Your task to perform on an android device: toggle sleep mode Image 0: 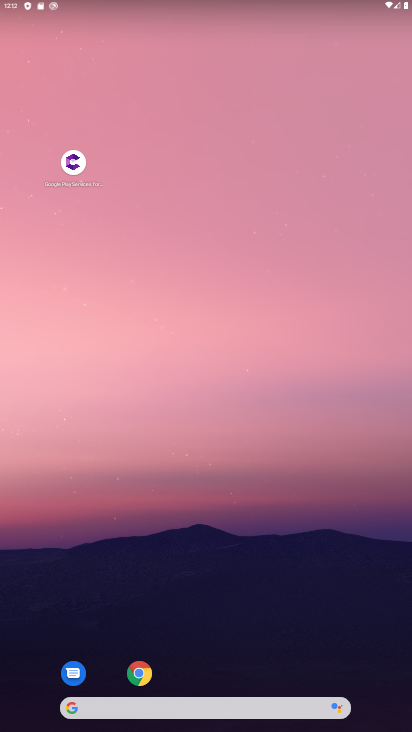
Step 0: drag from (211, 725) to (244, 125)
Your task to perform on an android device: toggle sleep mode Image 1: 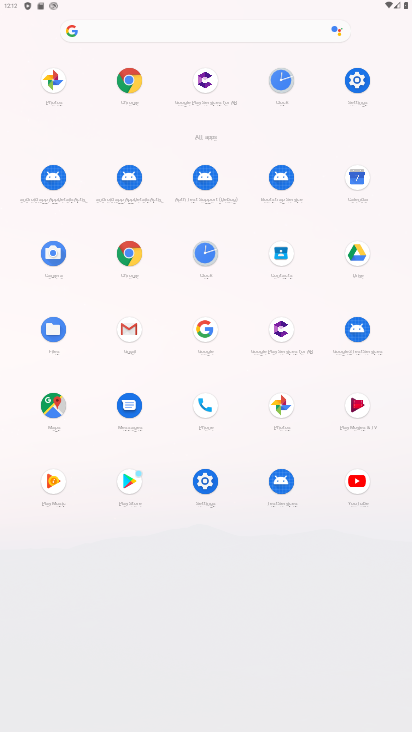
Step 1: click (211, 479)
Your task to perform on an android device: toggle sleep mode Image 2: 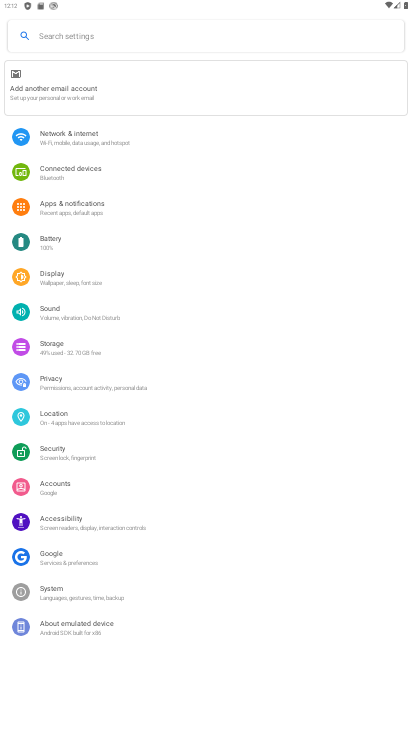
Step 2: click (137, 34)
Your task to perform on an android device: toggle sleep mode Image 3: 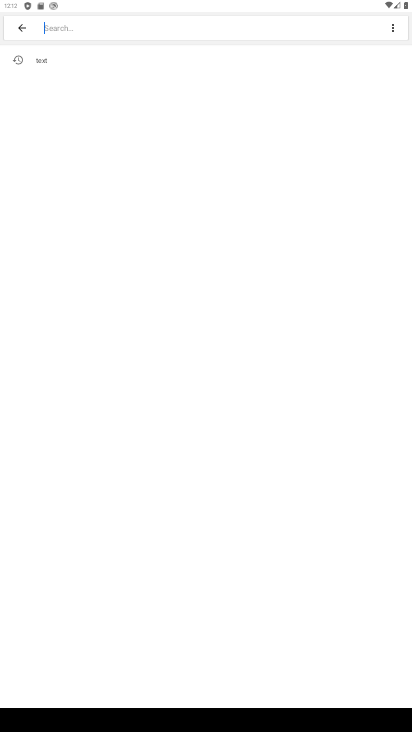
Step 3: type "sleep"
Your task to perform on an android device: toggle sleep mode Image 4: 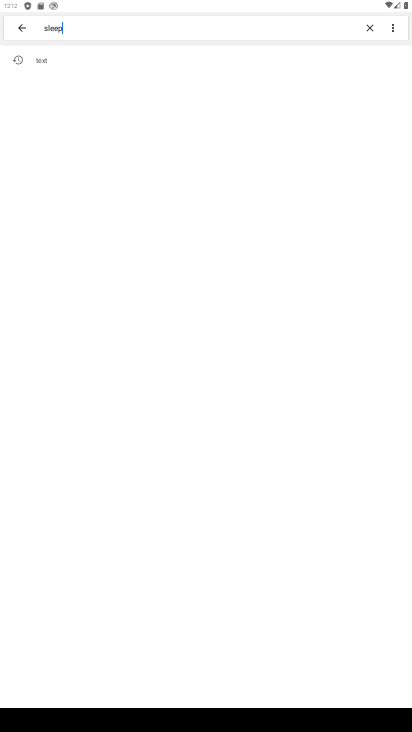
Step 4: type ""
Your task to perform on an android device: toggle sleep mode Image 5: 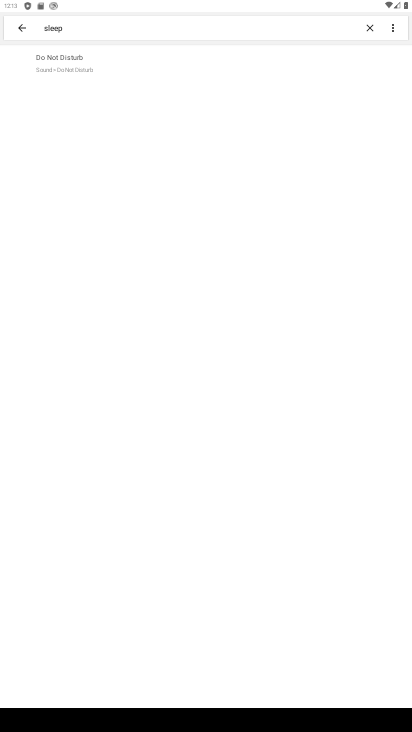
Step 5: click (229, 67)
Your task to perform on an android device: toggle sleep mode Image 6: 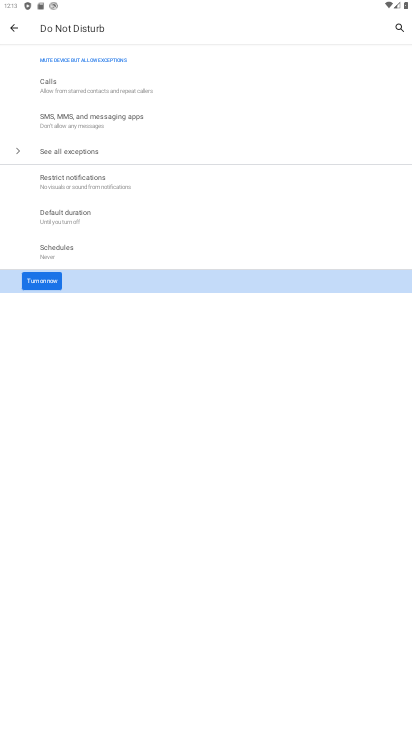
Step 6: task complete